Your task to perform on an android device: Go to calendar. Show me events next week Image 0: 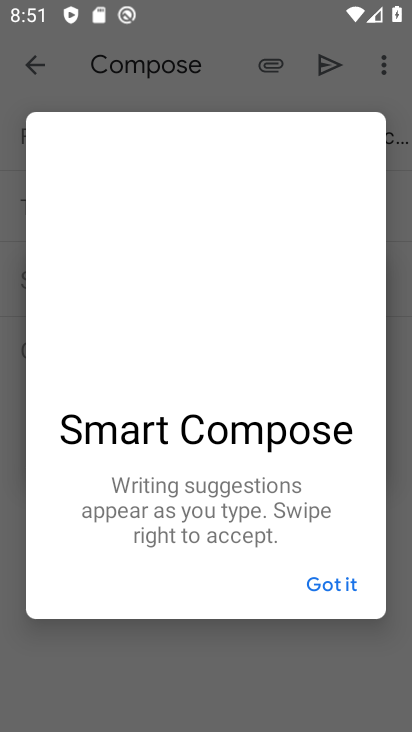
Step 0: press back button
Your task to perform on an android device: Go to calendar. Show me events next week Image 1: 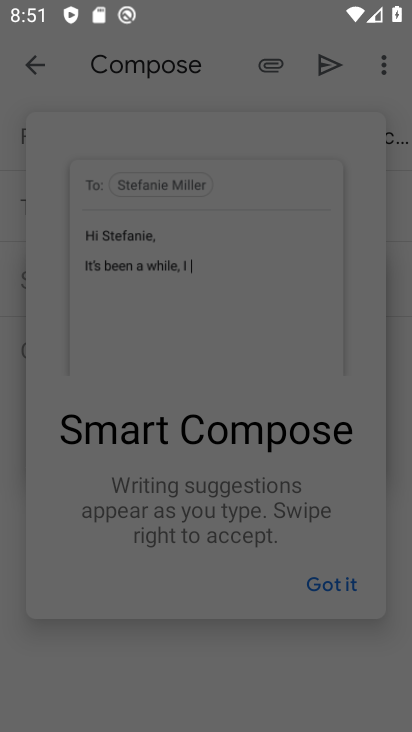
Step 1: press home button
Your task to perform on an android device: Go to calendar. Show me events next week Image 2: 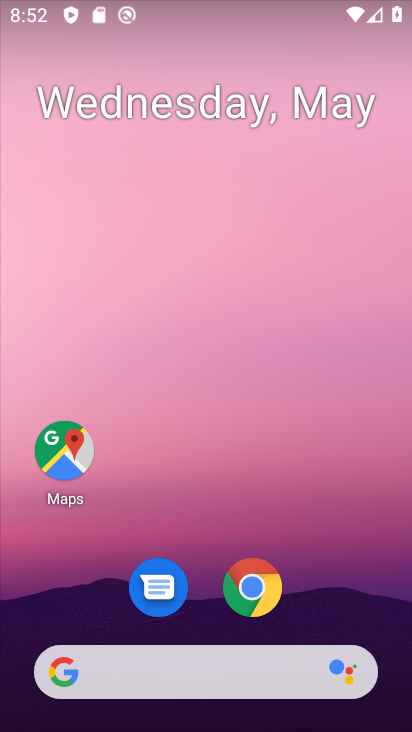
Step 2: drag from (100, 593) to (192, 181)
Your task to perform on an android device: Go to calendar. Show me events next week Image 3: 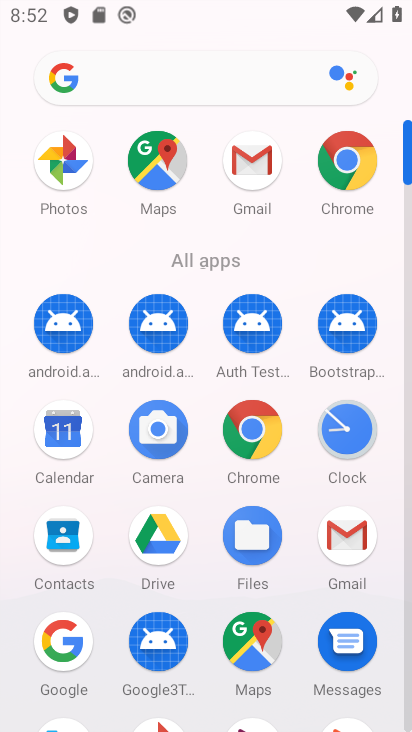
Step 3: click (64, 441)
Your task to perform on an android device: Go to calendar. Show me events next week Image 4: 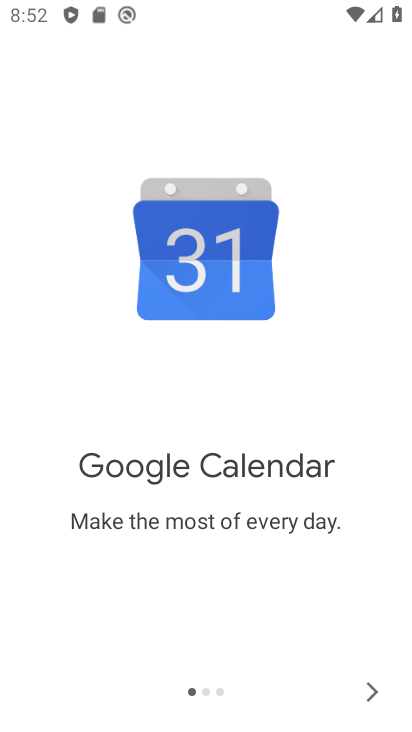
Step 4: click (369, 696)
Your task to perform on an android device: Go to calendar. Show me events next week Image 5: 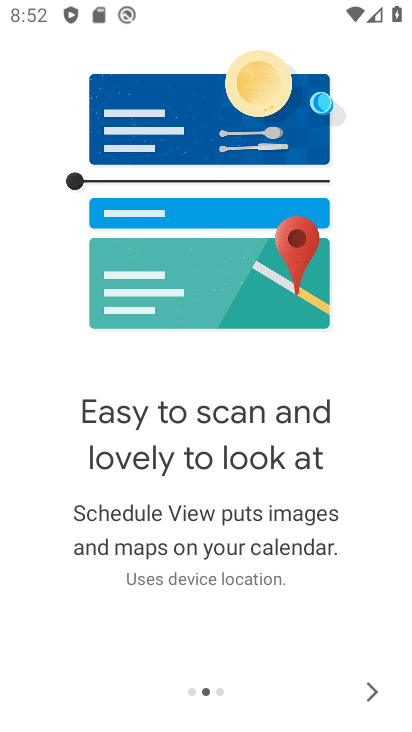
Step 5: click (369, 696)
Your task to perform on an android device: Go to calendar. Show me events next week Image 6: 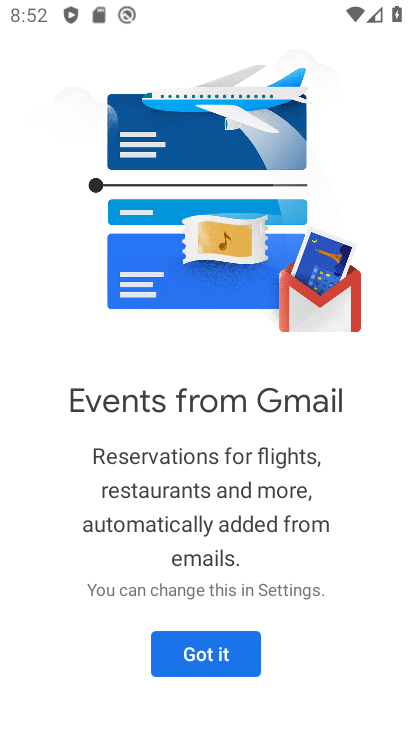
Step 6: click (269, 665)
Your task to perform on an android device: Go to calendar. Show me events next week Image 7: 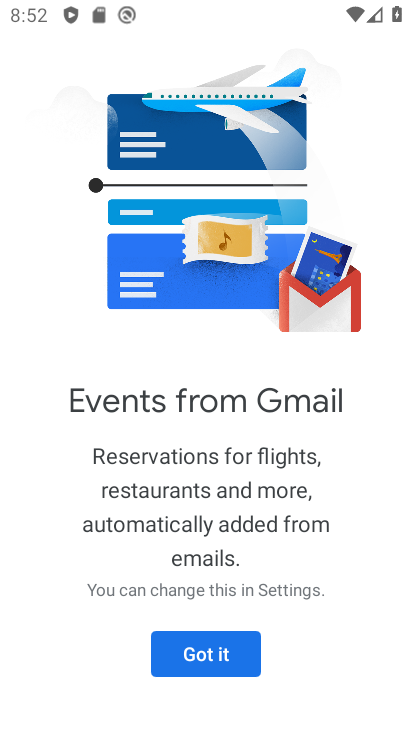
Step 7: click (264, 652)
Your task to perform on an android device: Go to calendar. Show me events next week Image 8: 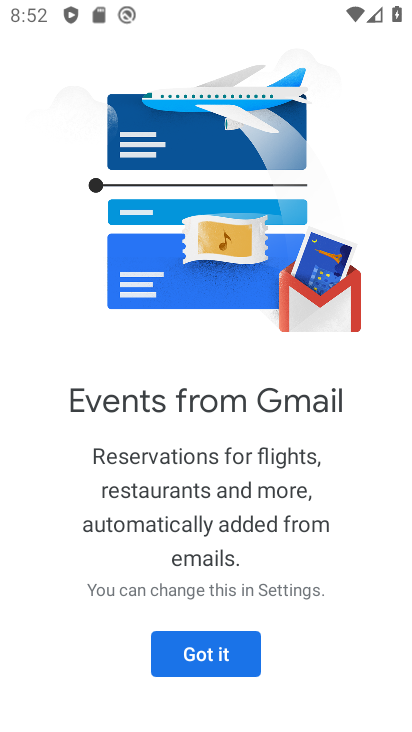
Step 8: click (215, 658)
Your task to perform on an android device: Go to calendar. Show me events next week Image 9: 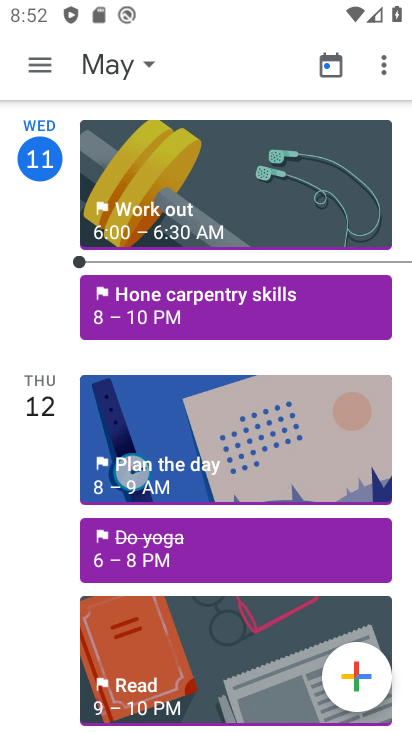
Step 9: click (49, 72)
Your task to perform on an android device: Go to calendar. Show me events next week Image 10: 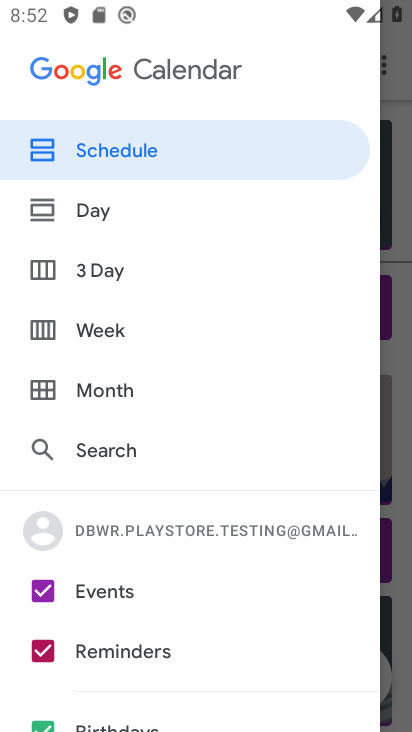
Step 10: click (100, 316)
Your task to perform on an android device: Go to calendar. Show me events next week Image 11: 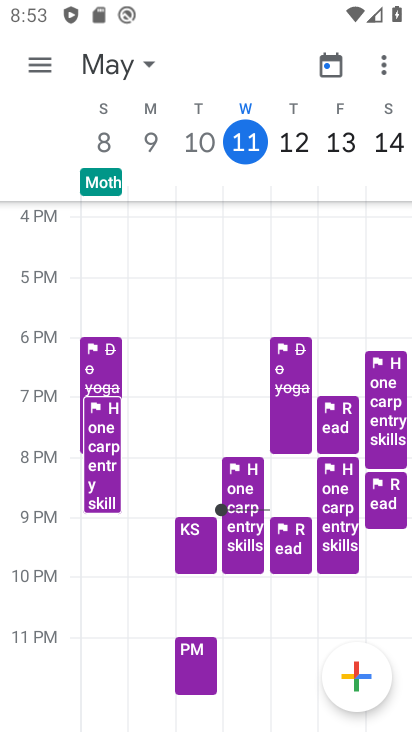
Step 11: click (117, 79)
Your task to perform on an android device: Go to calendar. Show me events next week Image 12: 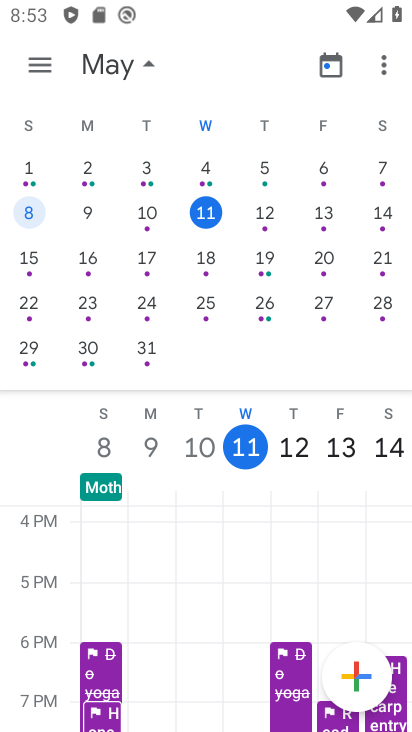
Step 12: click (26, 252)
Your task to perform on an android device: Go to calendar. Show me events next week Image 13: 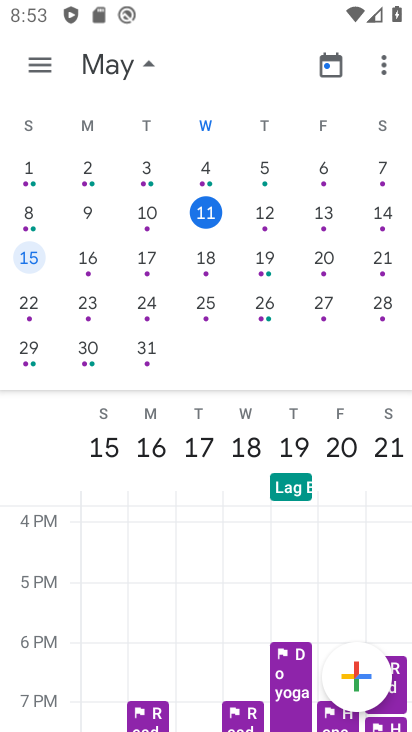
Step 13: click (142, 57)
Your task to perform on an android device: Go to calendar. Show me events next week Image 14: 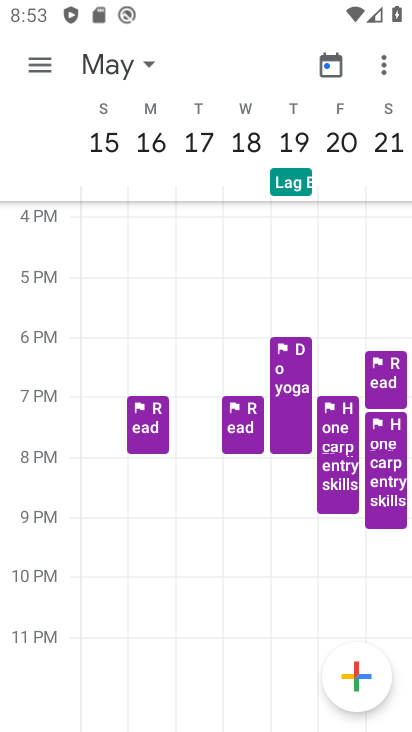
Step 14: task complete